Your task to perform on an android device: What's the weather today? Image 0: 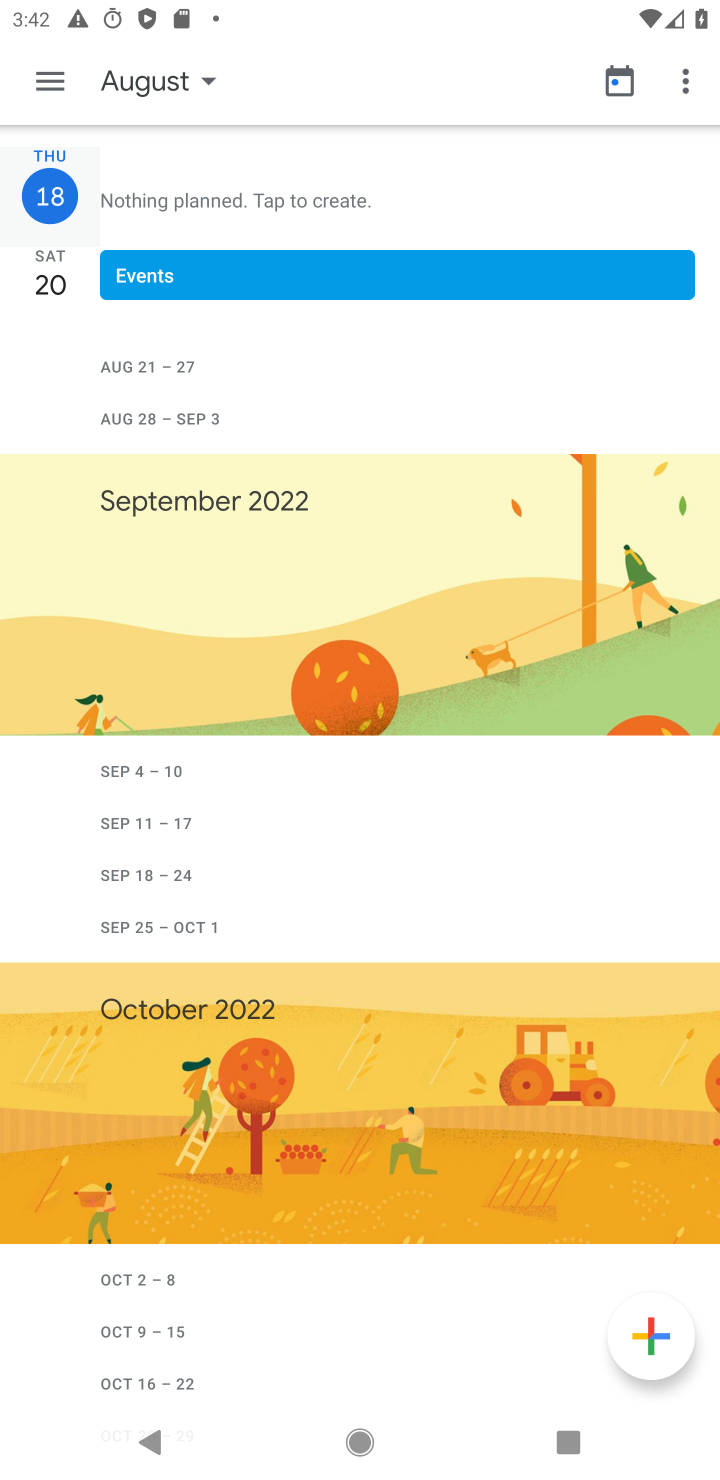
Step 0: press home button
Your task to perform on an android device: What's the weather today? Image 1: 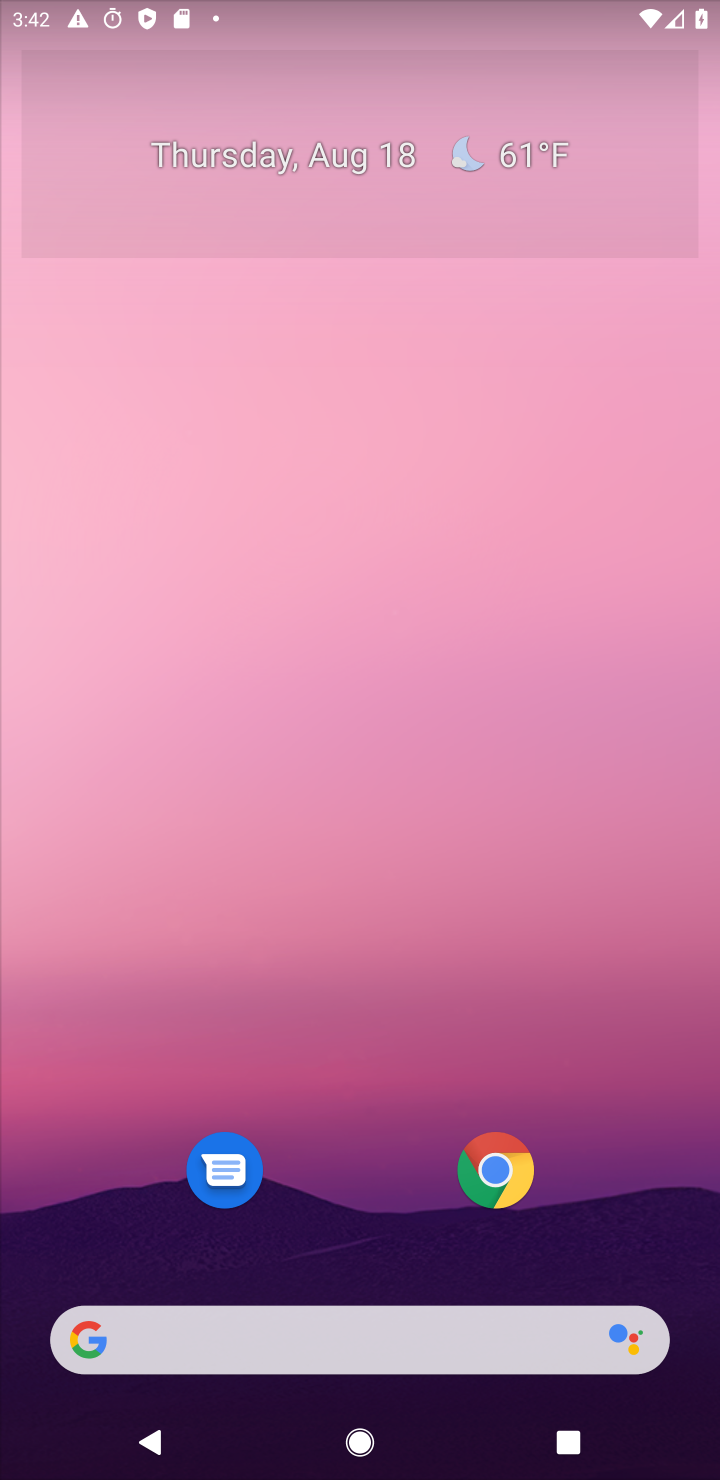
Step 1: click (151, 1333)
Your task to perform on an android device: What's the weather today? Image 2: 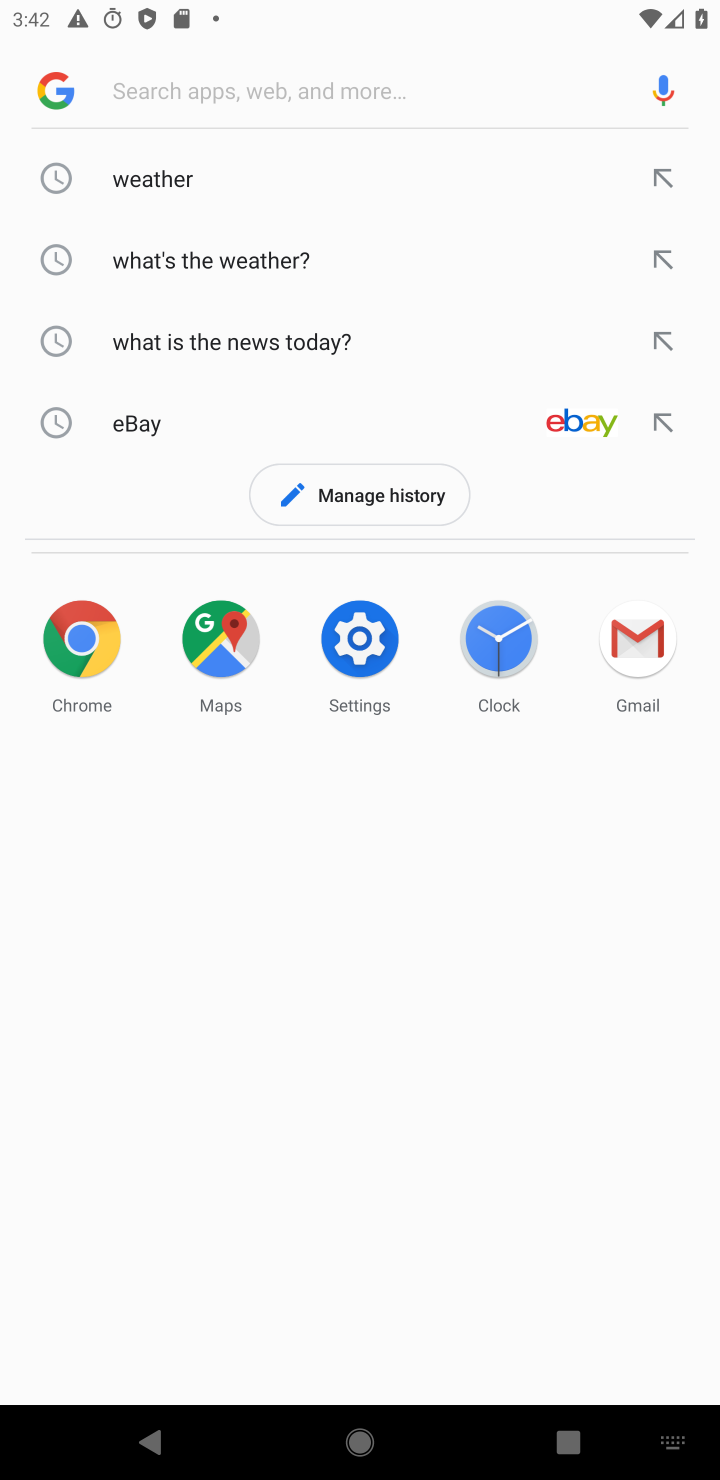
Step 2: type "What's the weather today?"
Your task to perform on an android device: What's the weather today? Image 3: 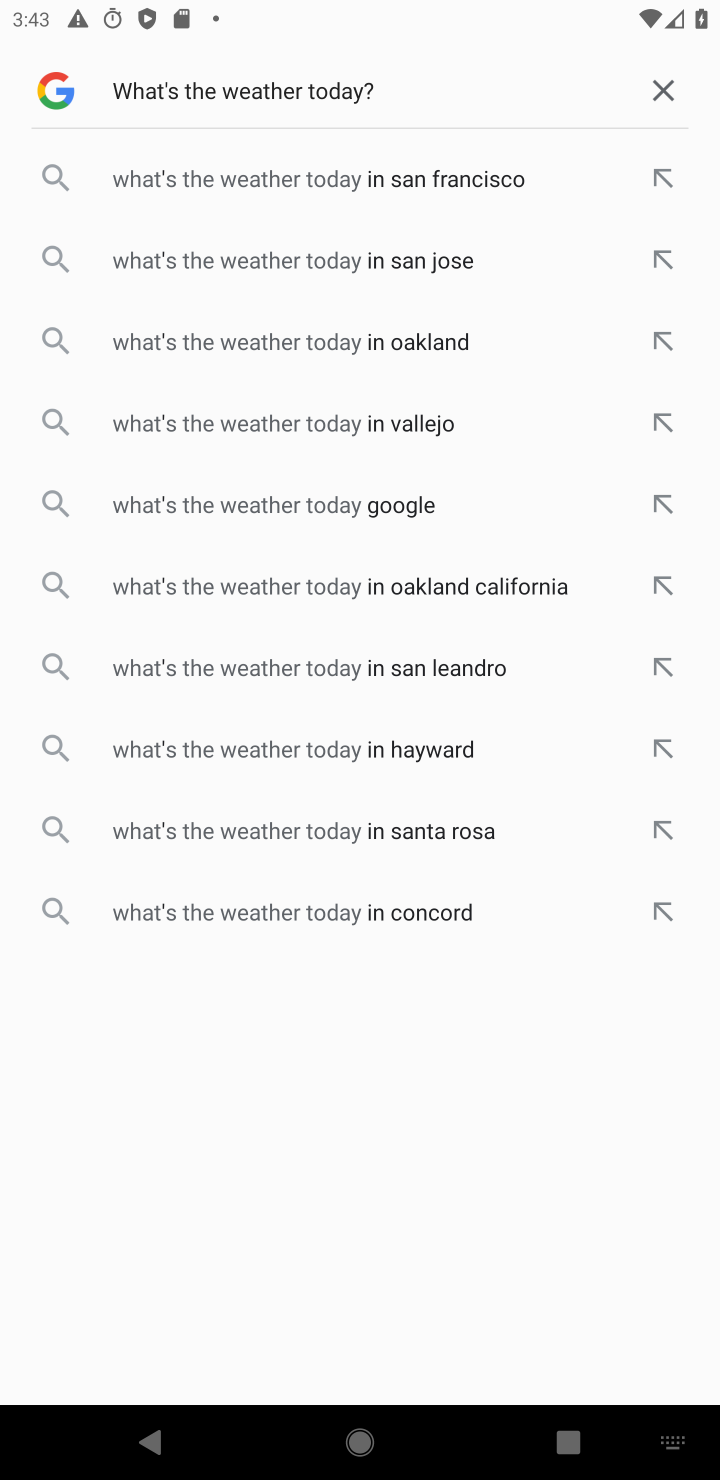
Step 3: task complete